Your task to perform on an android device: change keyboard looks Image 0: 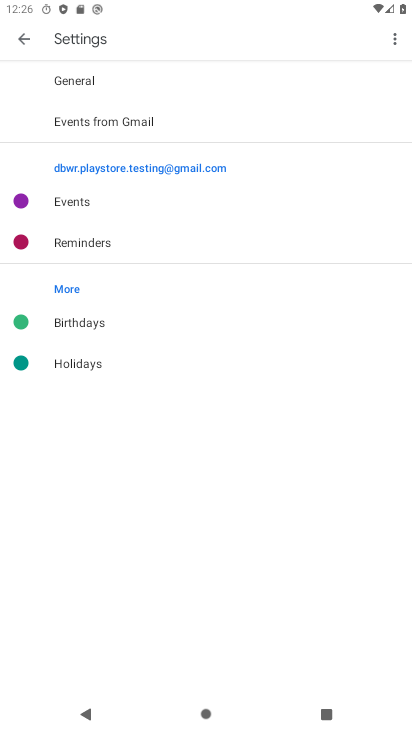
Step 0: press home button
Your task to perform on an android device: change keyboard looks Image 1: 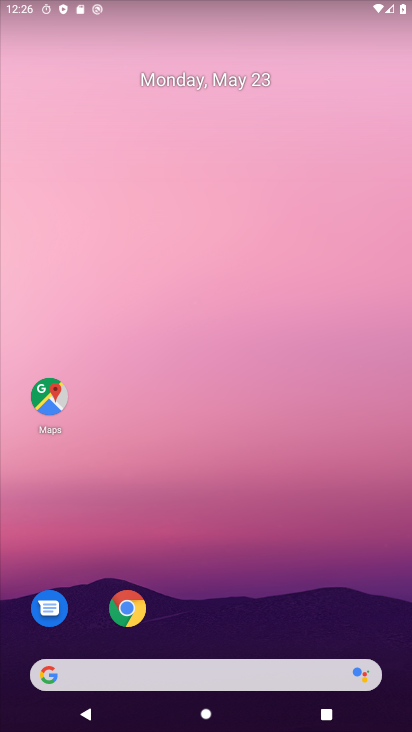
Step 1: drag from (350, 588) to (330, 224)
Your task to perform on an android device: change keyboard looks Image 2: 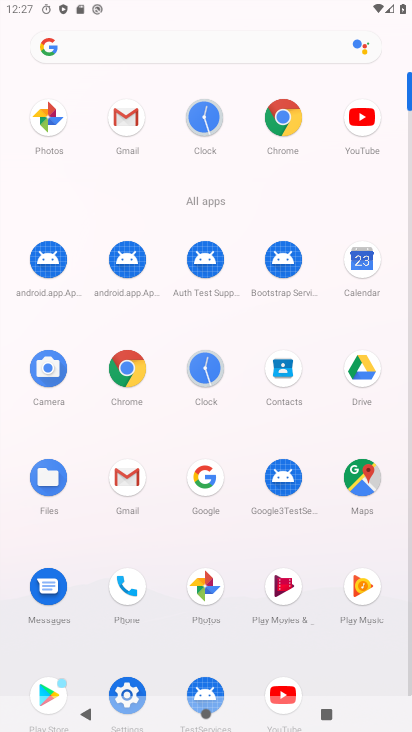
Step 2: click (121, 688)
Your task to perform on an android device: change keyboard looks Image 3: 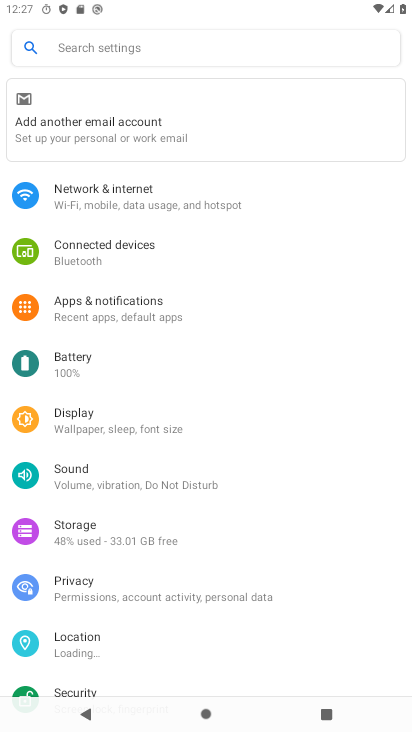
Step 3: drag from (160, 647) to (219, 191)
Your task to perform on an android device: change keyboard looks Image 4: 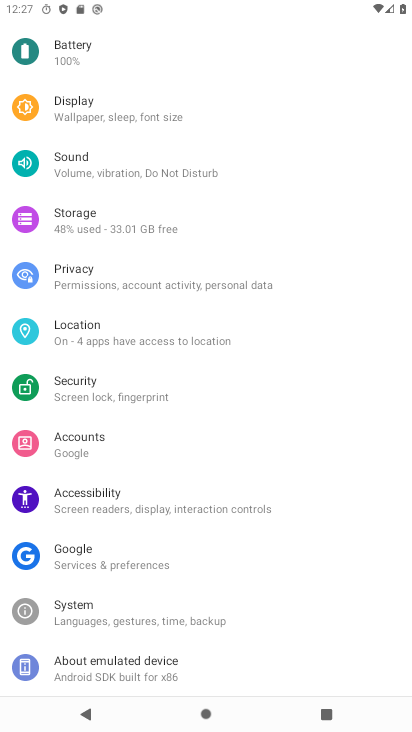
Step 4: click (153, 616)
Your task to perform on an android device: change keyboard looks Image 5: 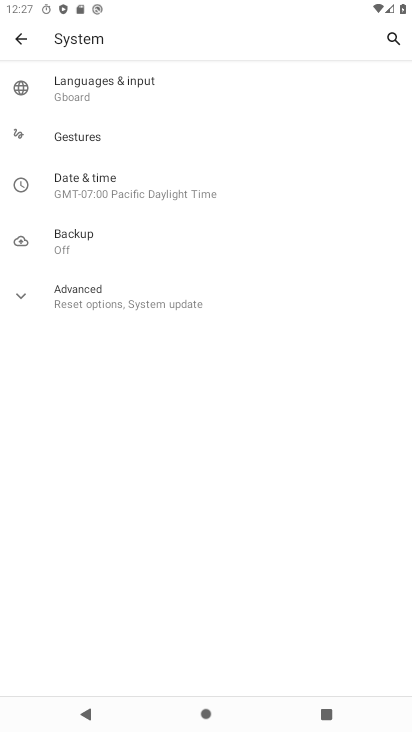
Step 5: click (137, 85)
Your task to perform on an android device: change keyboard looks Image 6: 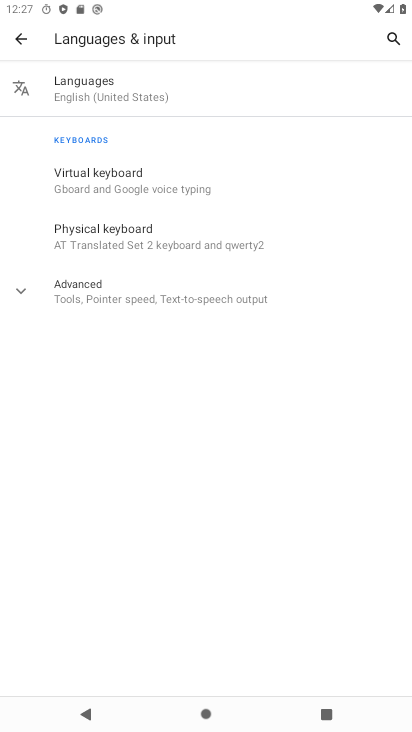
Step 6: click (131, 176)
Your task to perform on an android device: change keyboard looks Image 7: 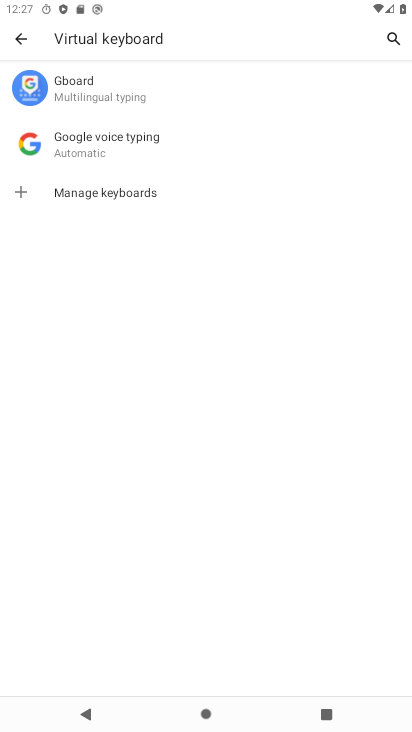
Step 7: click (124, 95)
Your task to perform on an android device: change keyboard looks Image 8: 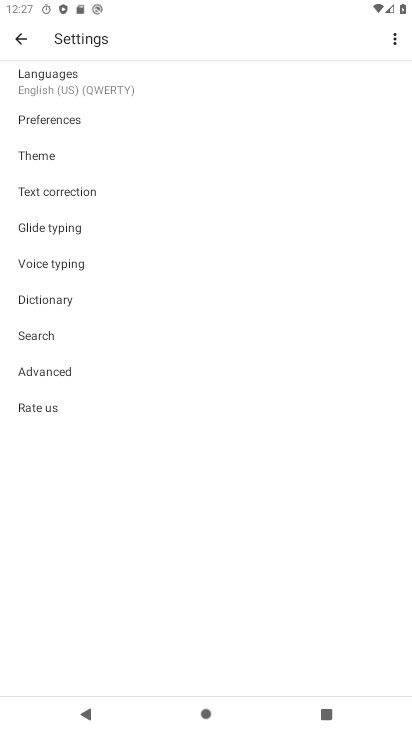
Step 8: click (70, 151)
Your task to perform on an android device: change keyboard looks Image 9: 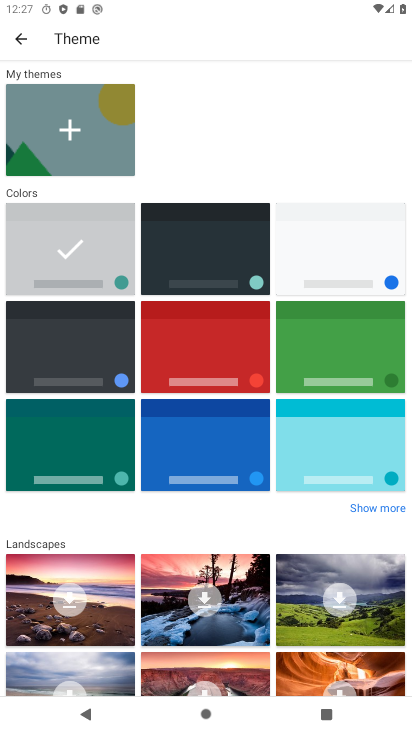
Step 9: click (218, 359)
Your task to perform on an android device: change keyboard looks Image 10: 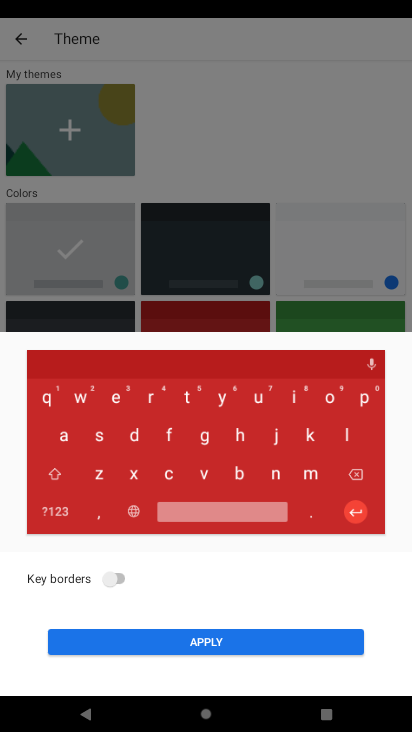
Step 10: click (235, 650)
Your task to perform on an android device: change keyboard looks Image 11: 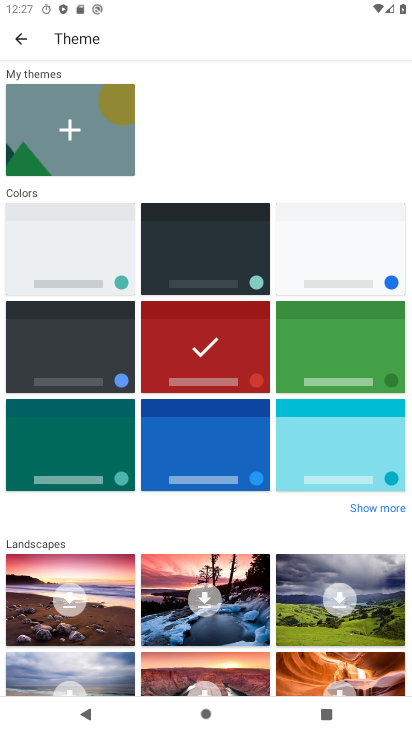
Step 11: task complete